Your task to perform on an android device: star an email in the gmail app Image 0: 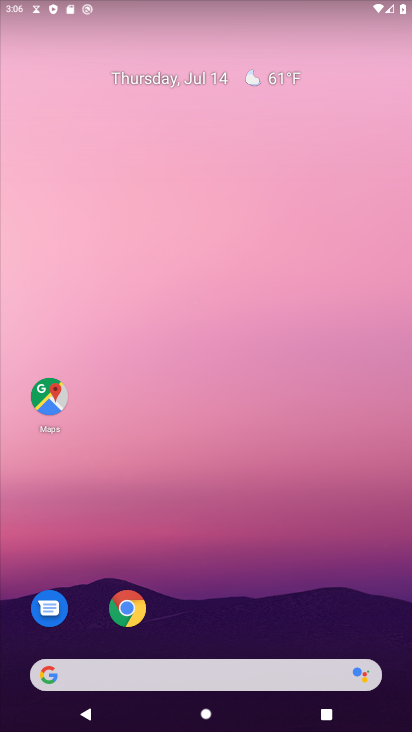
Step 0: drag from (187, 656) to (169, 126)
Your task to perform on an android device: star an email in the gmail app Image 1: 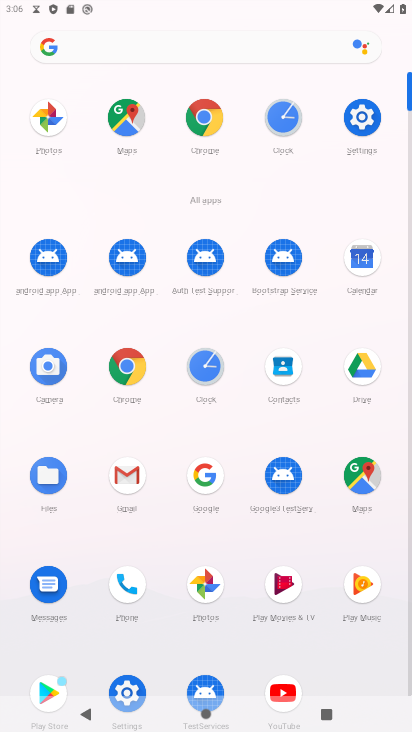
Step 1: click (130, 493)
Your task to perform on an android device: star an email in the gmail app Image 2: 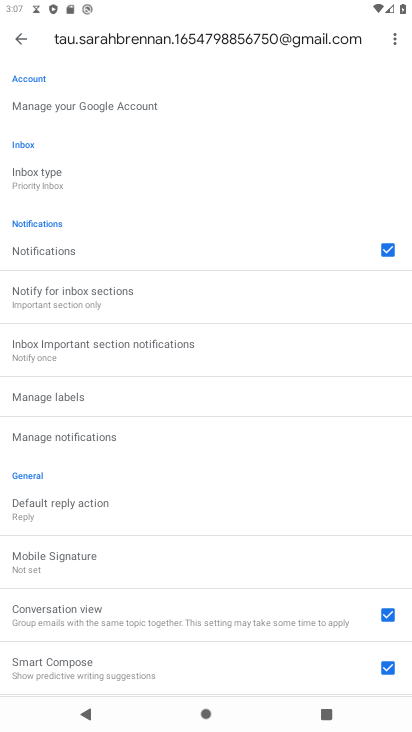
Step 2: click (19, 45)
Your task to perform on an android device: star an email in the gmail app Image 3: 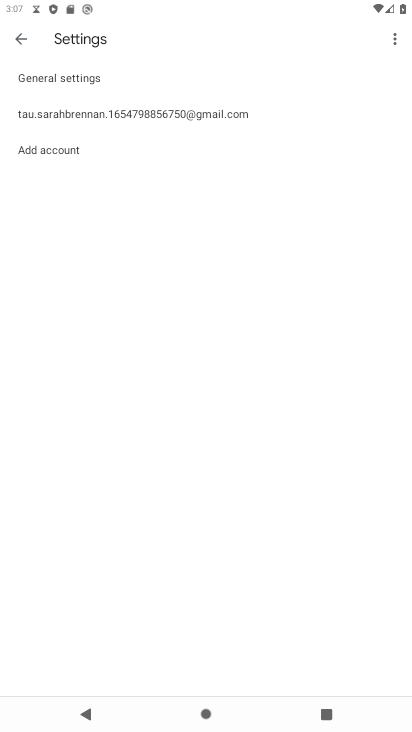
Step 3: click (24, 46)
Your task to perform on an android device: star an email in the gmail app Image 4: 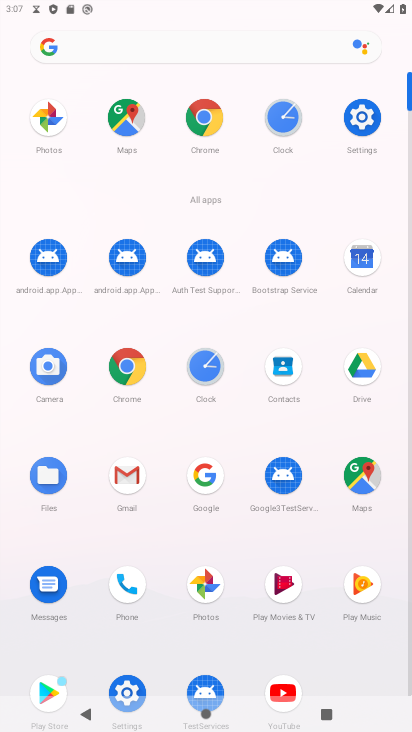
Step 4: click (136, 481)
Your task to perform on an android device: star an email in the gmail app Image 5: 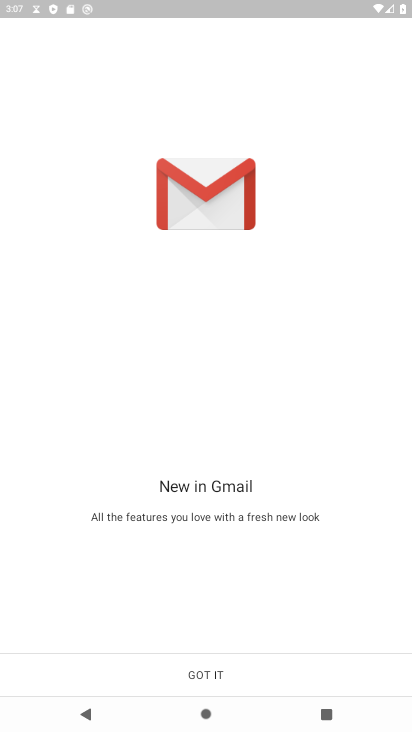
Step 5: click (221, 682)
Your task to perform on an android device: star an email in the gmail app Image 6: 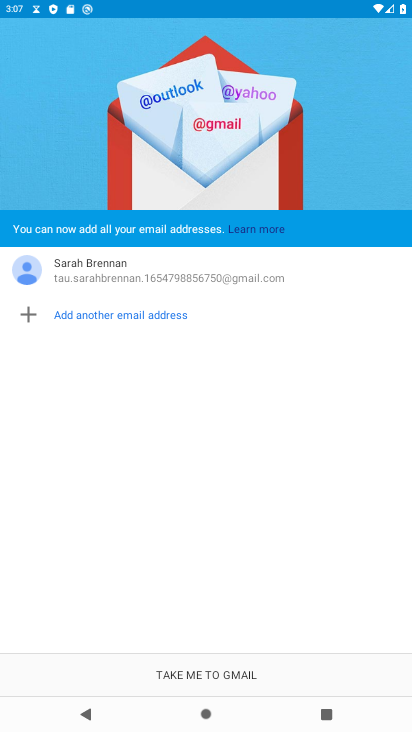
Step 6: click (211, 674)
Your task to perform on an android device: star an email in the gmail app Image 7: 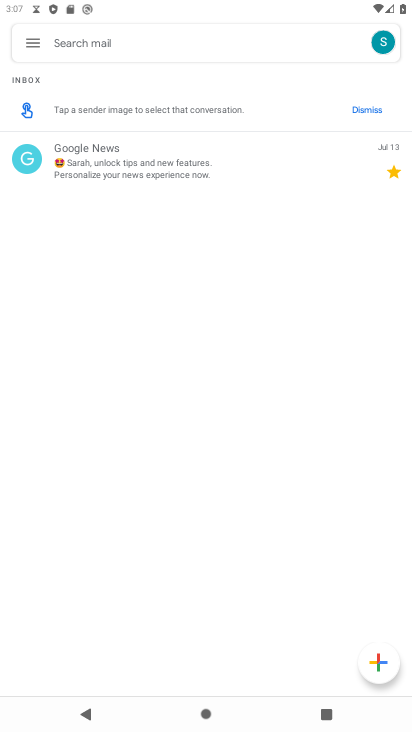
Step 7: task complete